Your task to perform on an android device: set the stopwatch Image 0: 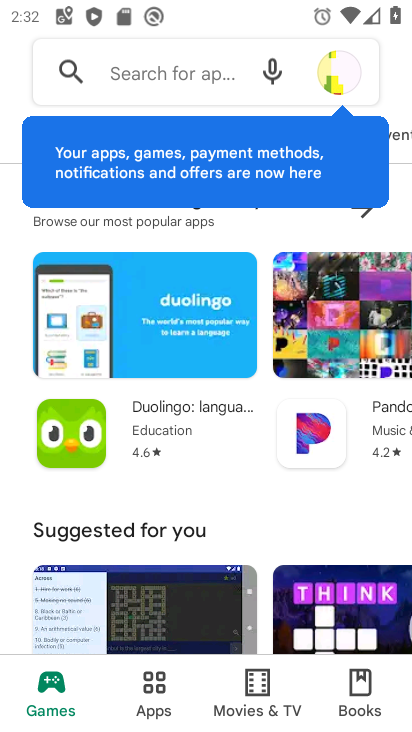
Step 0: press home button
Your task to perform on an android device: set the stopwatch Image 1: 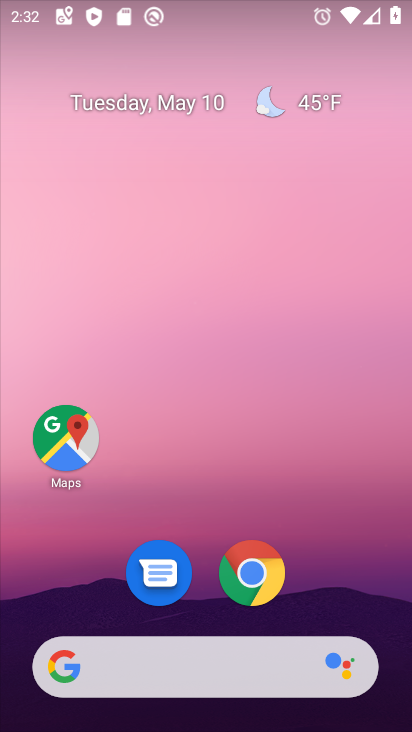
Step 1: drag from (242, 720) to (223, 16)
Your task to perform on an android device: set the stopwatch Image 2: 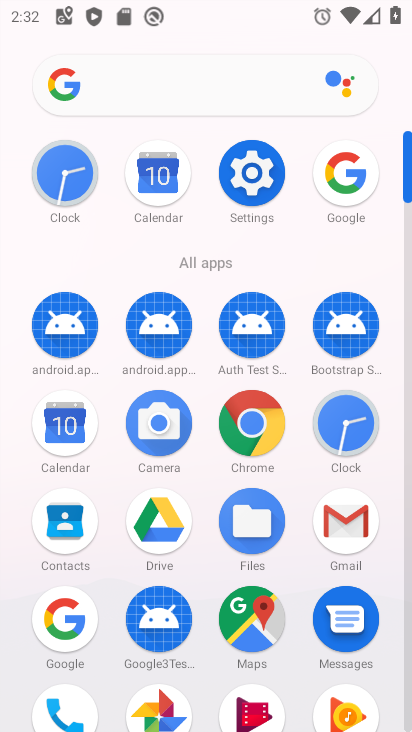
Step 2: click (350, 422)
Your task to perform on an android device: set the stopwatch Image 3: 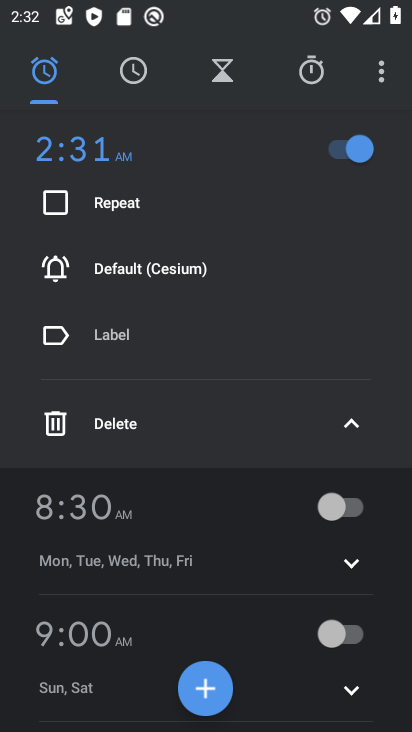
Step 3: click (315, 86)
Your task to perform on an android device: set the stopwatch Image 4: 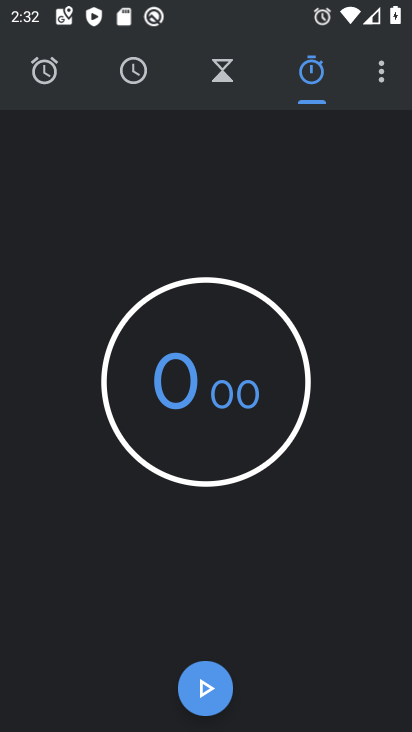
Step 4: task complete